Your task to perform on an android device: turn vacation reply on in the gmail app Image 0: 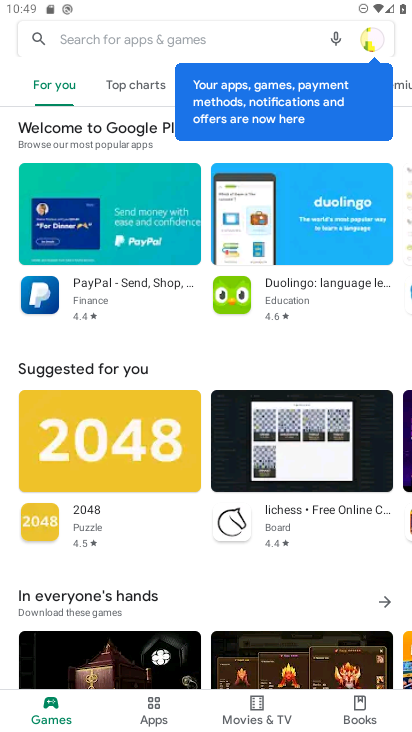
Step 0: press home button
Your task to perform on an android device: turn vacation reply on in the gmail app Image 1: 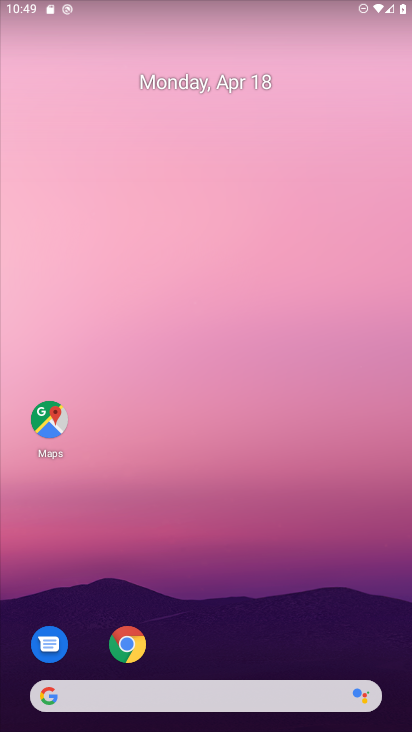
Step 1: drag from (169, 475) to (236, 19)
Your task to perform on an android device: turn vacation reply on in the gmail app Image 2: 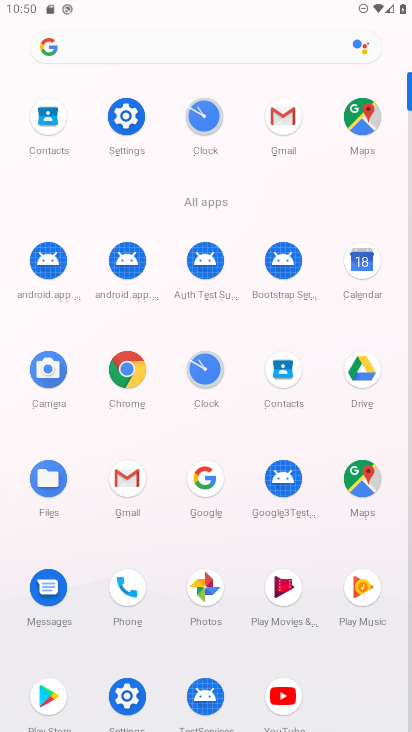
Step 2: click (283, 115)
Your task to perform on an android device: turn vacation reply on in the gmail app Image 3: 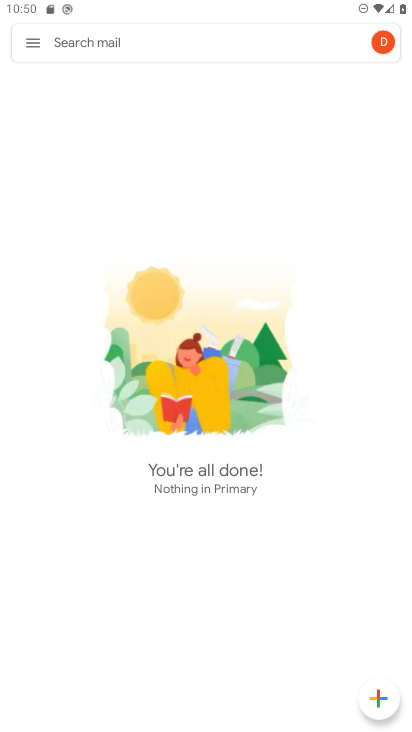
Step 3: click (31, 41)
Your task to perform on an android device: turn vacation reply on in the gmail app Image 4: 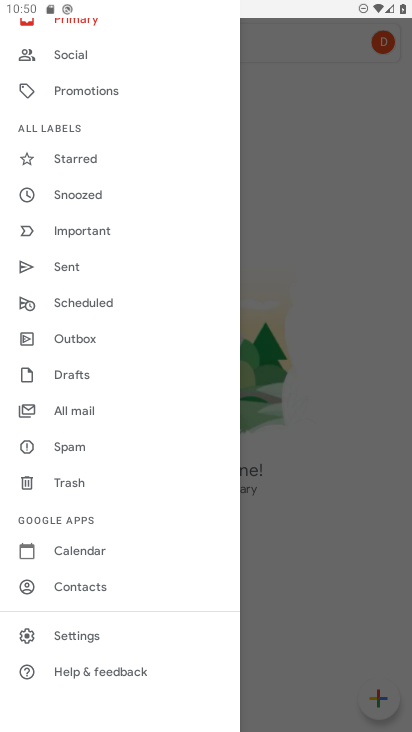
Step 4: drag from (104, 579) to (139, 172)
Your task to perform on an android device: turn vacation reply on in the gmail app Image 5: 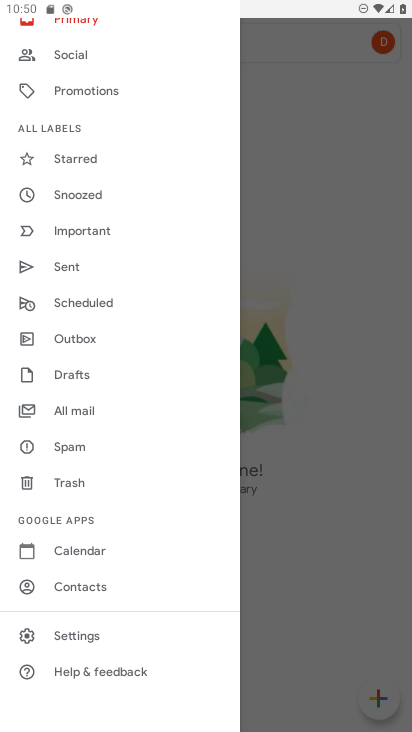
Step 5: click (68, 632)
Your task to perform on an android device: turn vacation reply on in the gmail app Image 6: 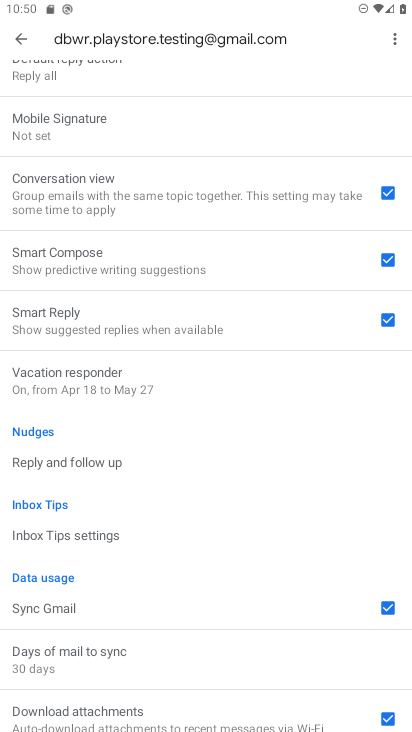
Step 6: click (118, 383)
Your task to perform on an android device: turn vacation reply on in the gmail app Image 7: 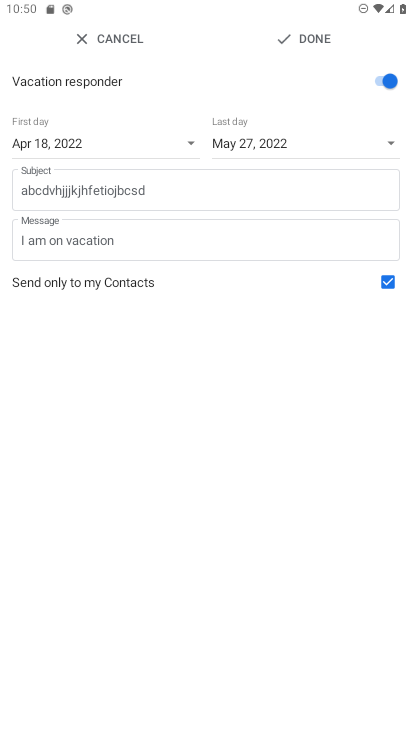
Step 7: task complete